Your task to perform on an android device: Do I have any events today? Image 0: 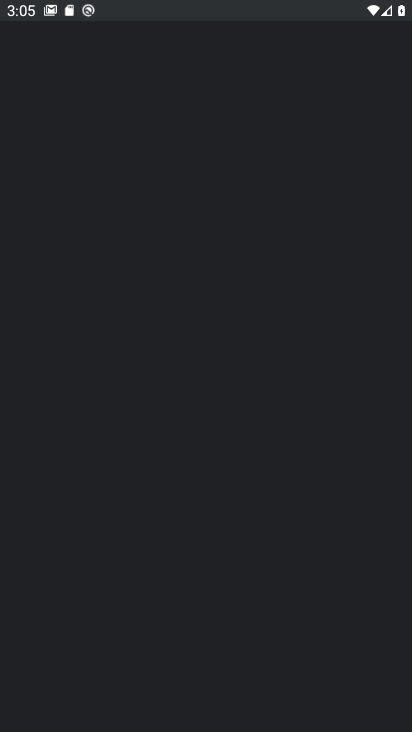
Step 0: click (133, 631)
Your task to perform on an android device: Do I have any events today? Image 1: 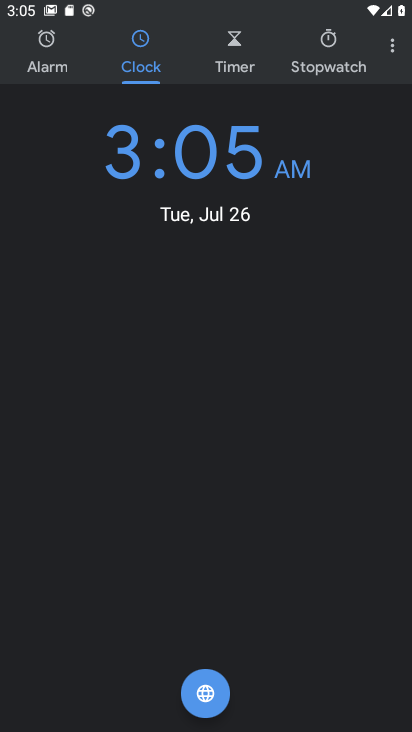
Step 1: press home button
Your task to perform on an android device: Do I have any events today? Image 2: 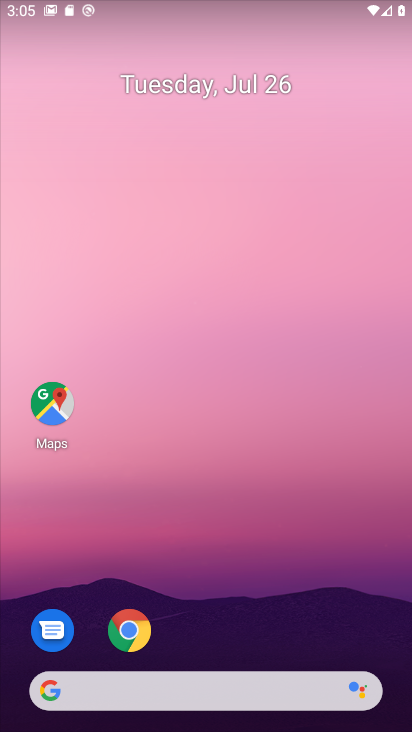
Step 2: click (209, 83)
Your task to perform on an android device: Do I have any events today? Image 3: 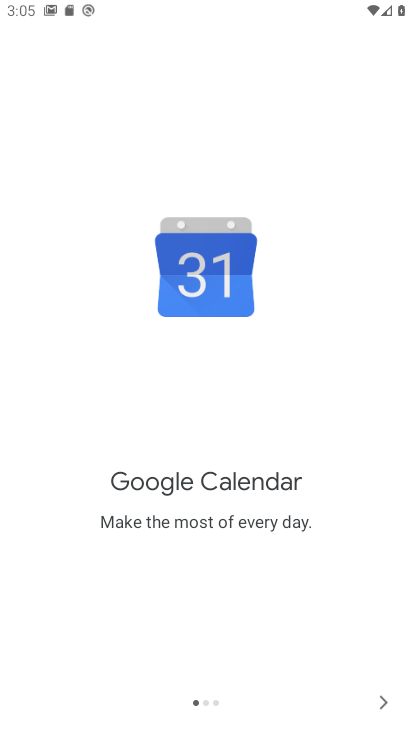
Step 3: click (379, 707)
Your task to perform on an android device: Do I have any events today? Image 4: 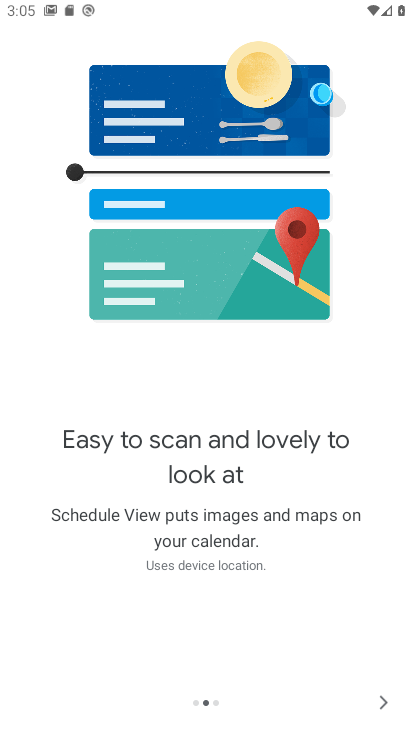
Step 4: click (382, 698)
Your task to perform on an android device: Do I have any events today? Image 5: 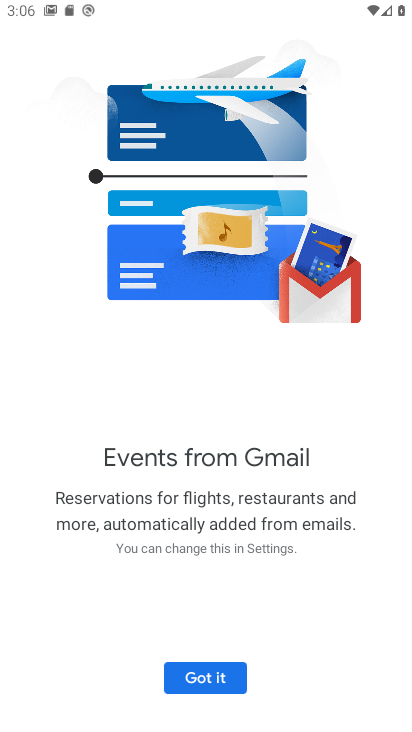
Step 5: click (205, 669)
Your task to perform on an android device: Do I have any events today? Image 6: 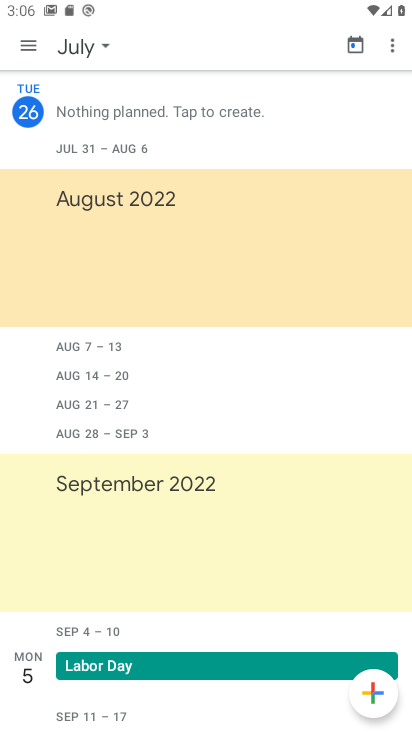
Step 6: task complete